Your task to perform on an android device: Empty the shopping cart on ebay.com. Add logitech g903 to the cart on ebay.com Image 0: 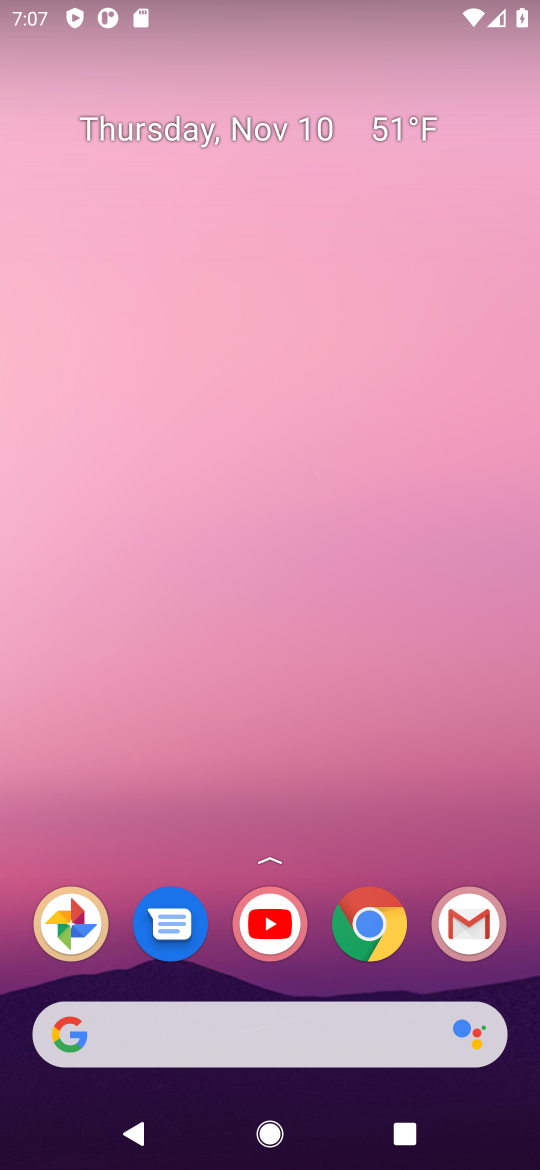
Step 0: click (369, 933)
Your task to perform on an android device: Empty the shopping cart on ebay.com. Add logitech g903 to the cart on ebay.com Image 1: 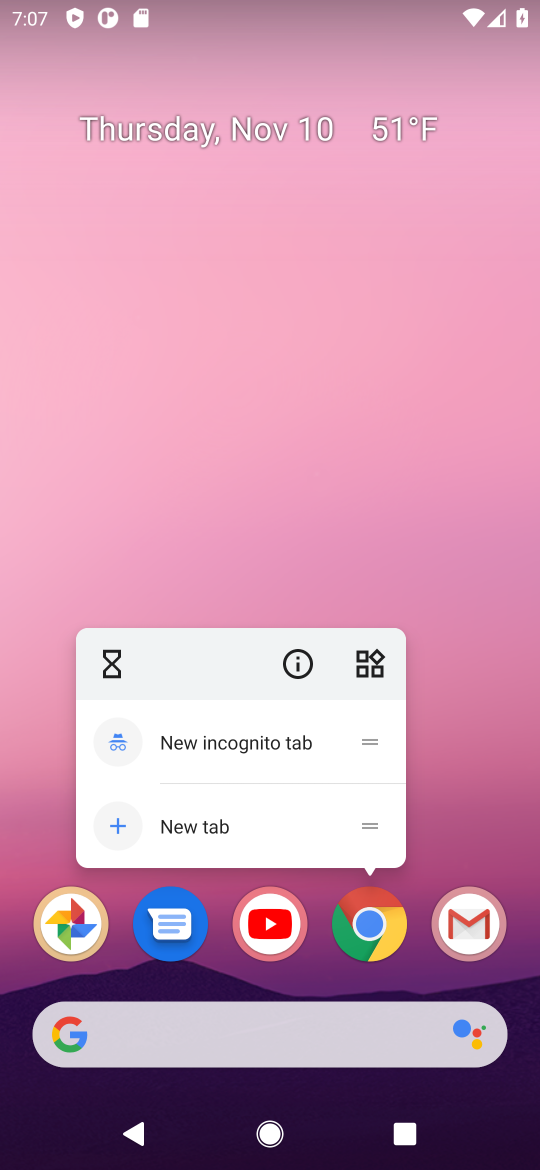
Step 1: click (369, 933)
Your task to perform on an android device: Empty the shopping cart on ebay.com. Add logitech g903 to the cart on ebay.com Image 2: 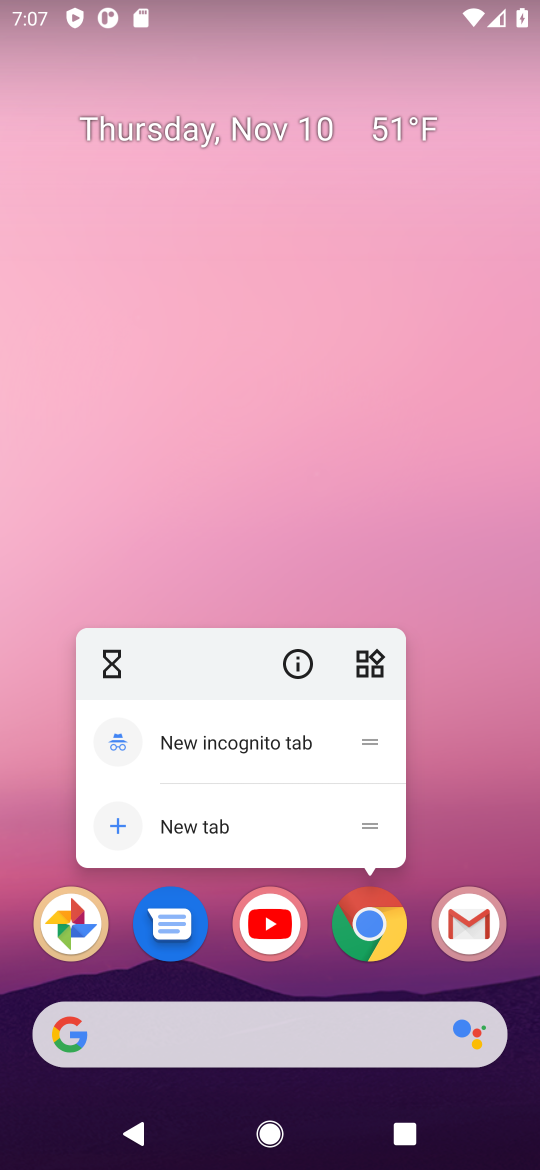
Step 2: click (369, 933)
Your task to perform on an android device: Empty the shopping cart on ebay.com. Add logitech g903 to the cart on ebay.com Image 3: 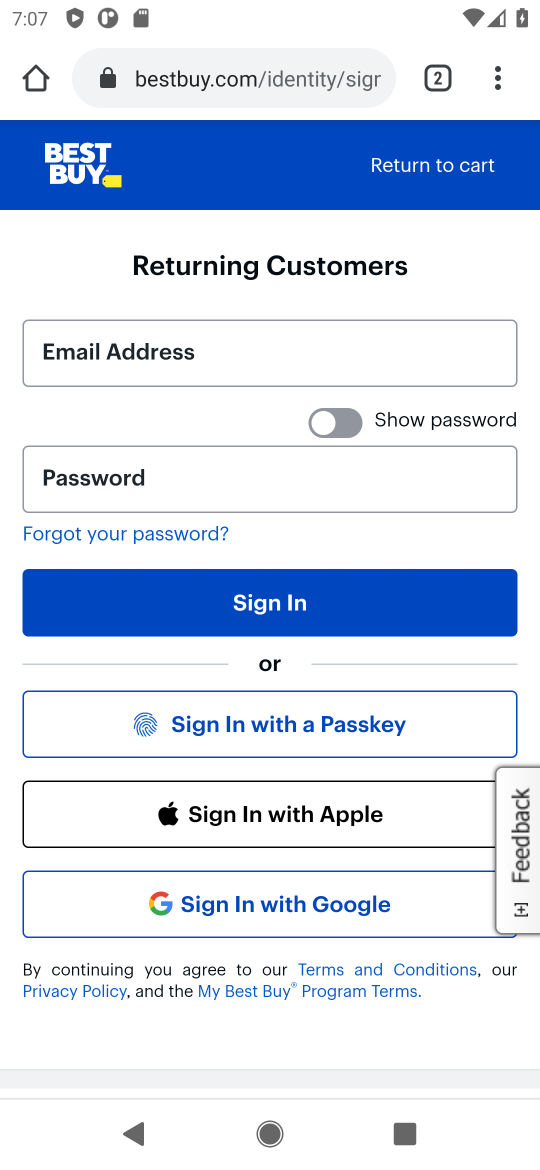
Step 3: click (210, 79)
Your task to perform on an android device: Empty the shopping cart on ebay.com. Add logitech g903 to the cart on ebay.com Image 4: 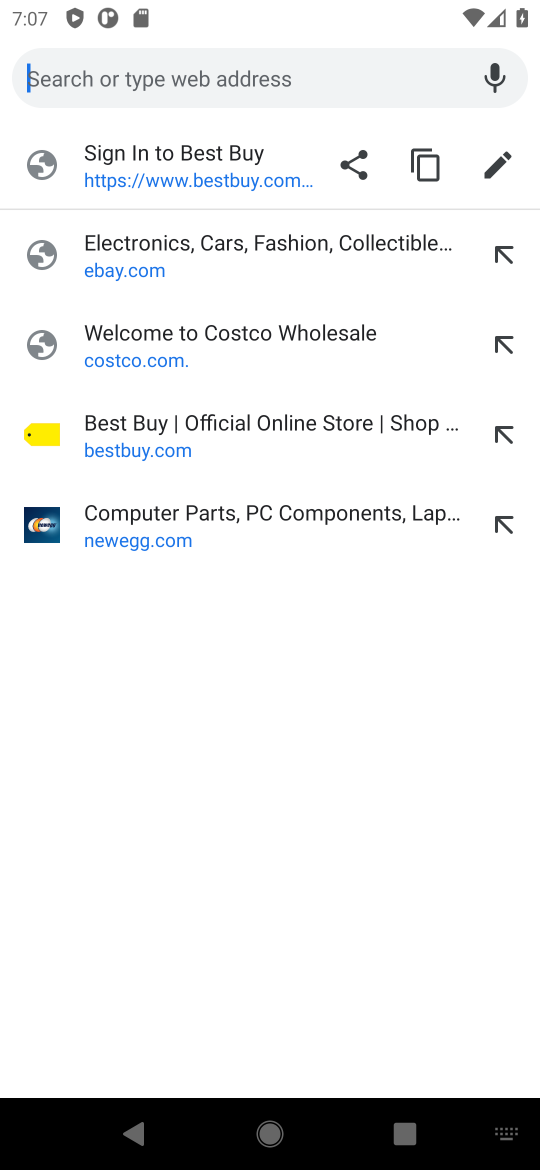
Step 4: click (117, 267)
Your task to perform on an android device: Empty the shopping cart on ebay.com. Add logitech g903 to the cart on ebay.com Image 5: 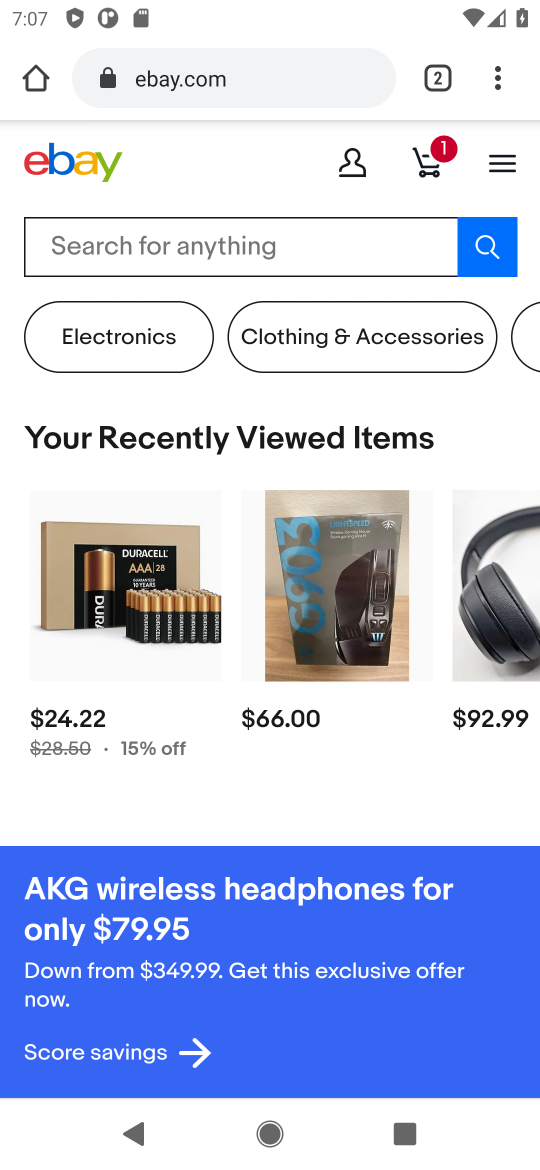
Step 5: click (416, 163)
Your task to perform on an android device: Empty the shopping cart on ebay.com. Add logitech g903 to the cart on ebay.com Image 6: 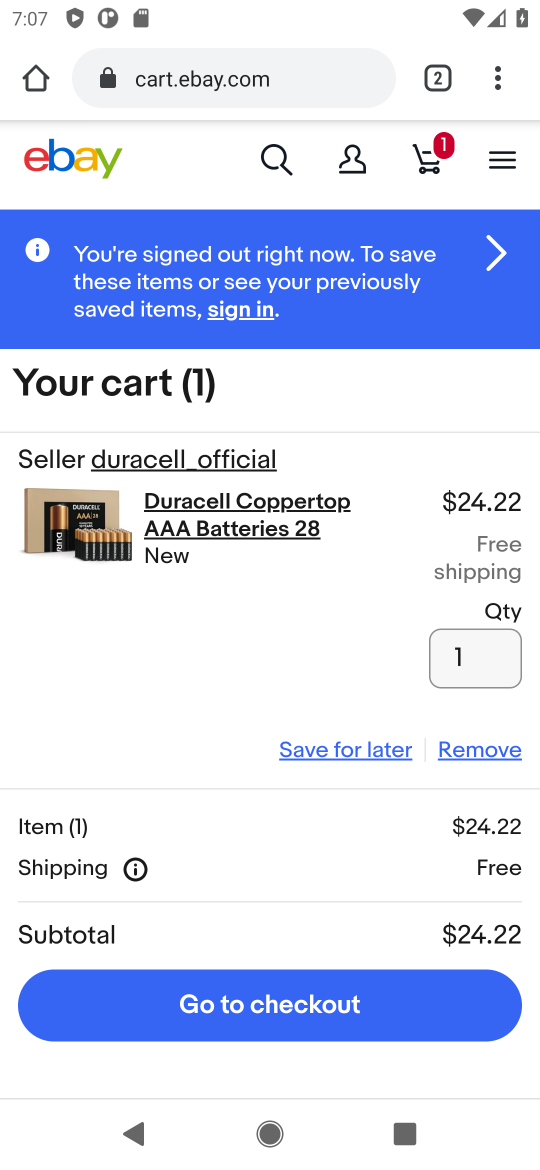
Step 6: click (460, 745)
Your task to perform on an android device: Empty the shopping cart on ebay.com. Add logitech g903 to the cart on ebay.com Image 7: 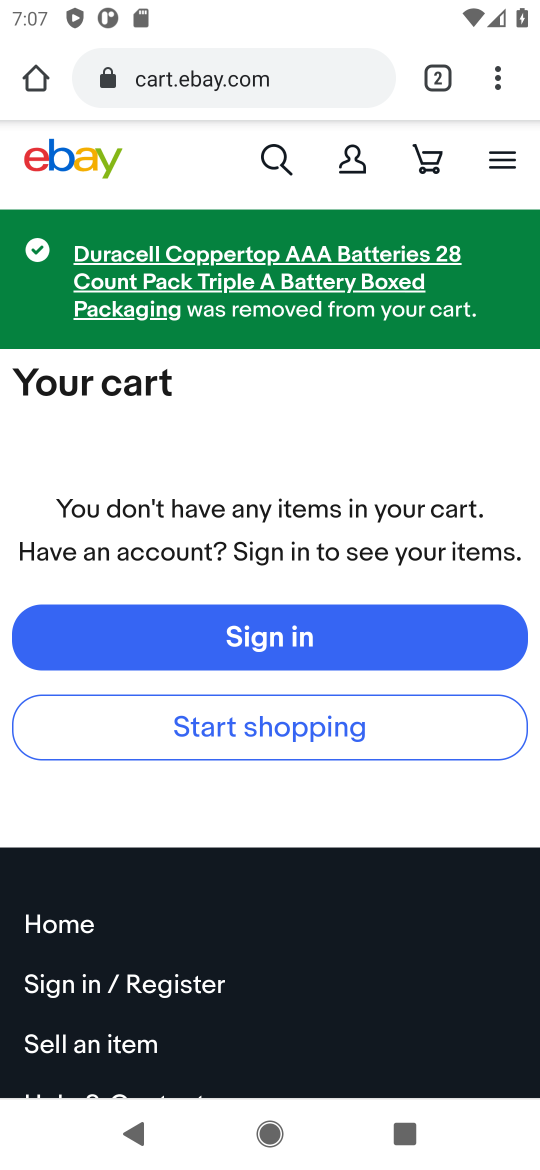
Step 7: click (268, 154)
Your task to perform on an android device: Empty the shopping cart on ebay.com. Add logitech g903 to the cart on ebay.com Image 8: 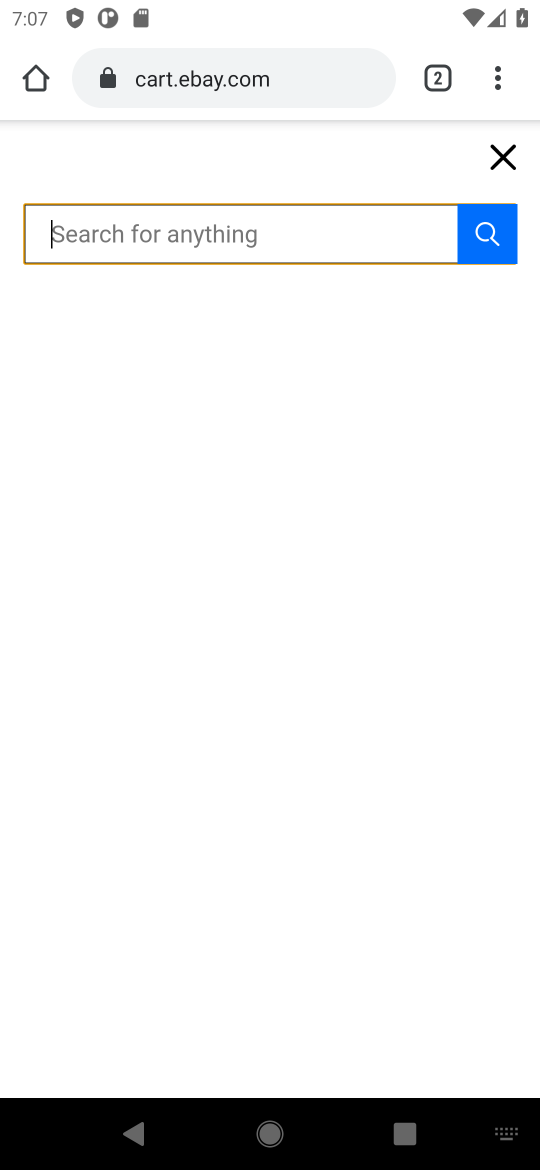
Step 8: type "logitech g903"
Your task to perform on an android device: Empty the shopping cart on ebay.com. Add logitech g903 to the cart on ebay.com Image 9: 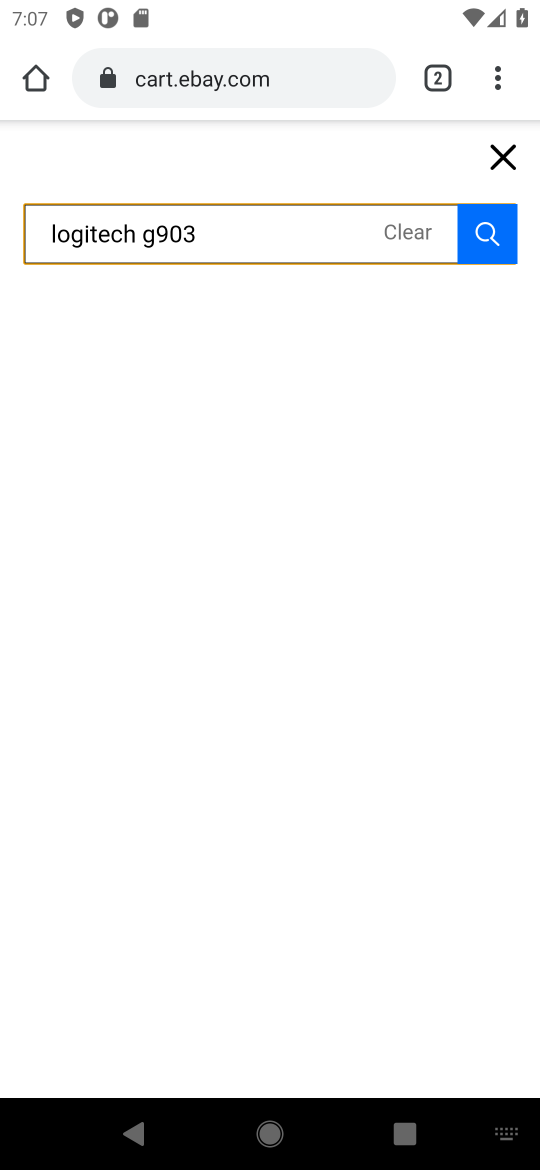
Step 9: click (486, 235)
Your task to perform on an android device: Empty the shopping cart on ebay.com. Add logitech g903 to the cart on ebay.com Image 10: 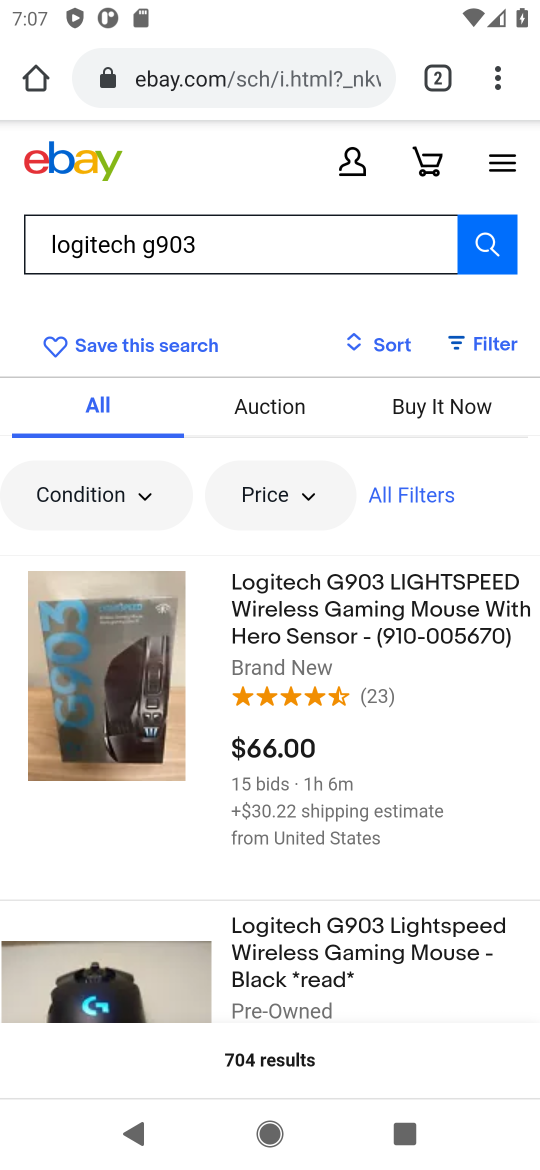
Step 10: click (119, 693)
Your task to perform on an android device: Empty the shopping cart on ebay.com. Add logitech g903 to the cart on ebay.com Image 11: 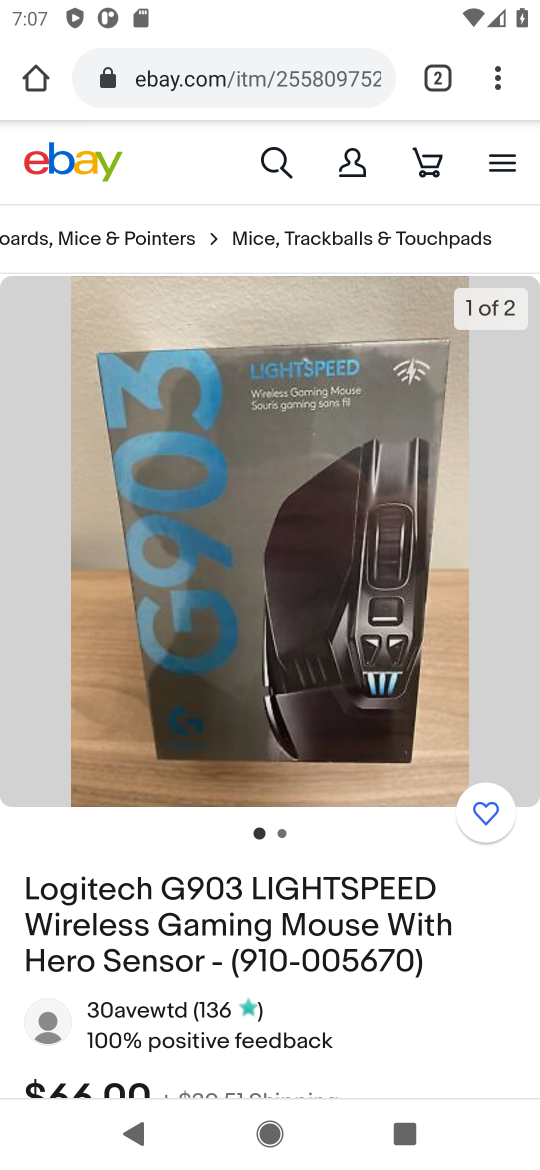
Step 11: drag from (162, 865) to (151, 397)
Your task to perform on an android device: Empty the shopping cart on ebay.com. Add logitech g903 to the cart on ebay.com Image 12: 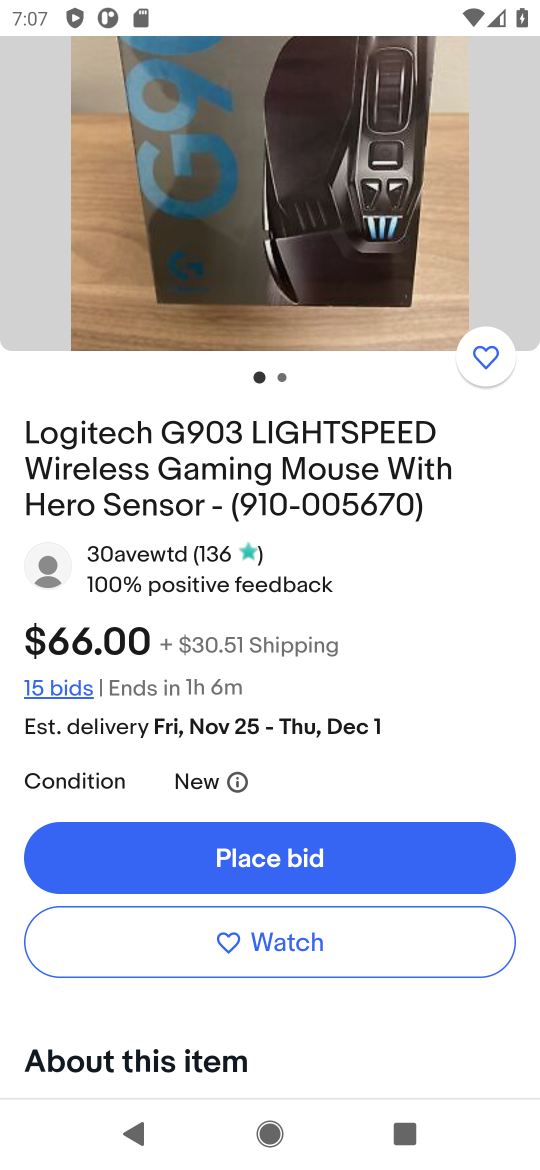
Step 12: press back button
Your task to perform on an android device: Empty the shopping cart on ebay.com. Add logitech g903 to the cart on ebay.com Image 13: 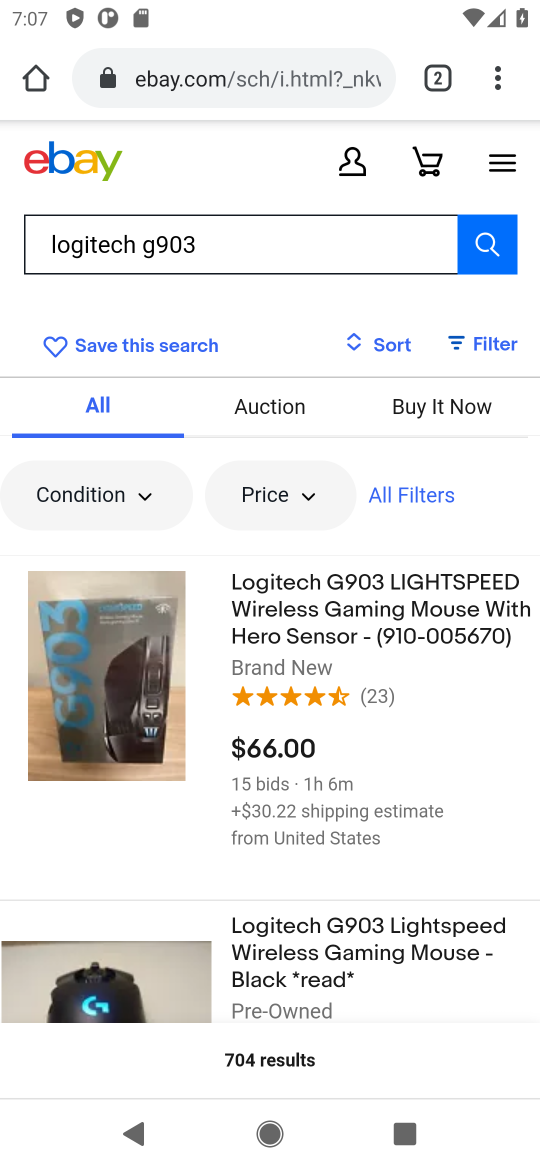
Step 13: drag from (192, 836) to (163, 491)
Your task to perform on an android device: Empty the shopping cart on ebay.com. Add logitech g903 to the cart on ebay.com Image 14: 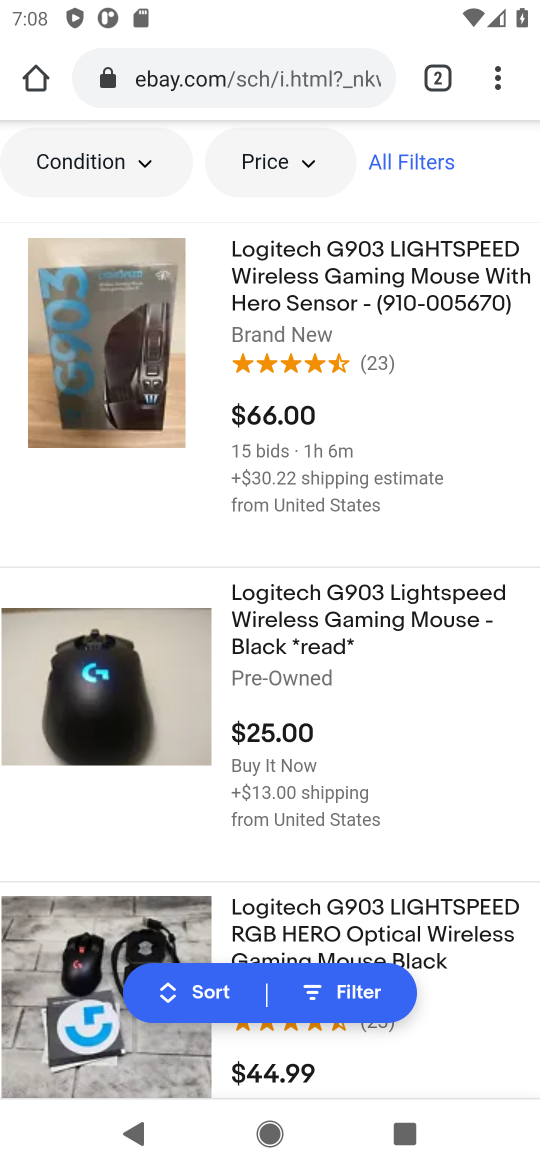
Step 14: click (114, 694)
Your task to perform on an android device: Empty the shopping cart on ebay.com. Add logitech g903 to the cart on ebay.com Image 15: 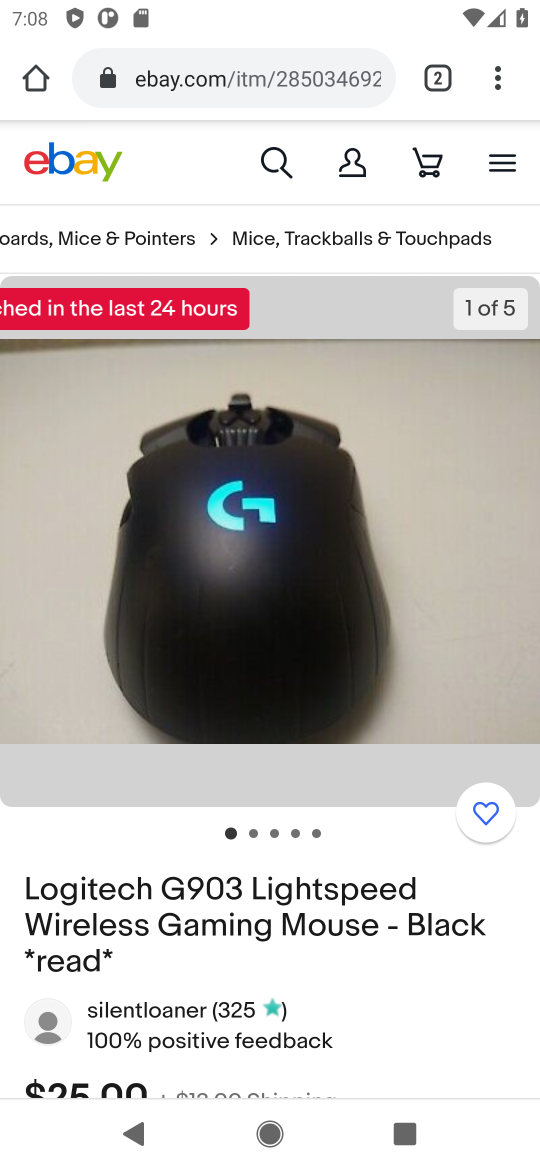
Step 15: drag from (221, 841) to (160, 345)
Your task to perform on an android device: Empty the shopping cart on ebay.com. Add logitech g903 to the cart on ebay.com Image 16: 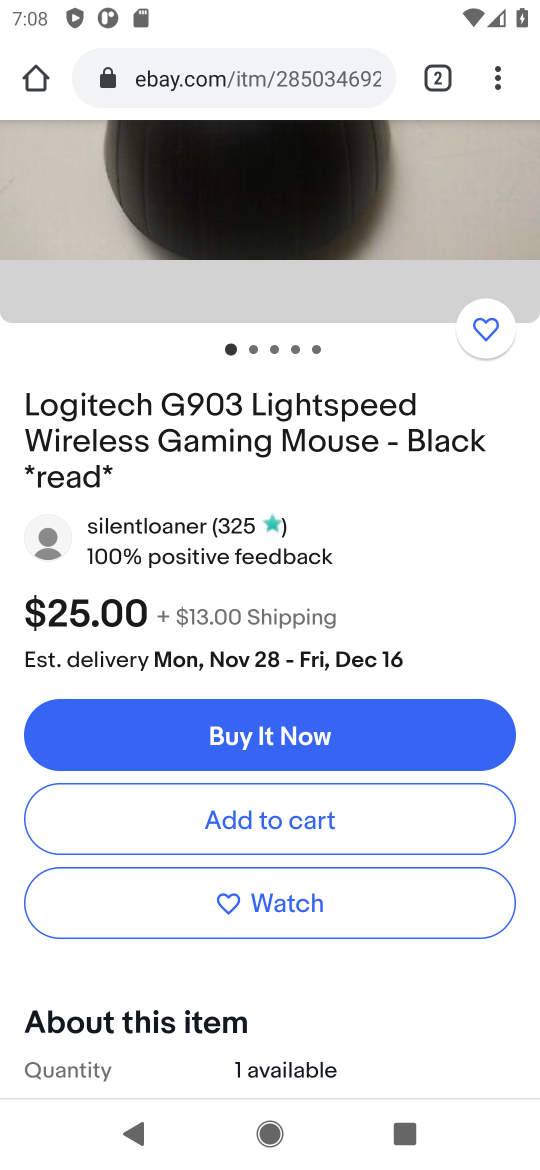
Step 16: click (201, 804)
Your task to perform on an android device: Empty the shopping cart on ebay.com. Add logitech g903 to the cart on ebay.com Image 17: 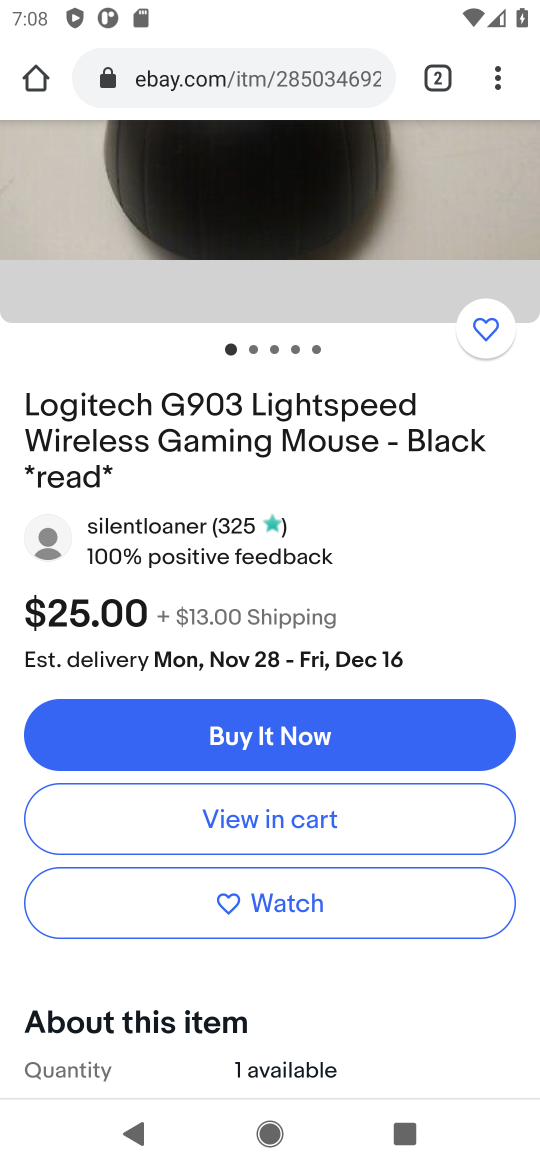
Step 17: task complete